Your task to perform on an android device: stop showing notifications on the lock screen Image 0: 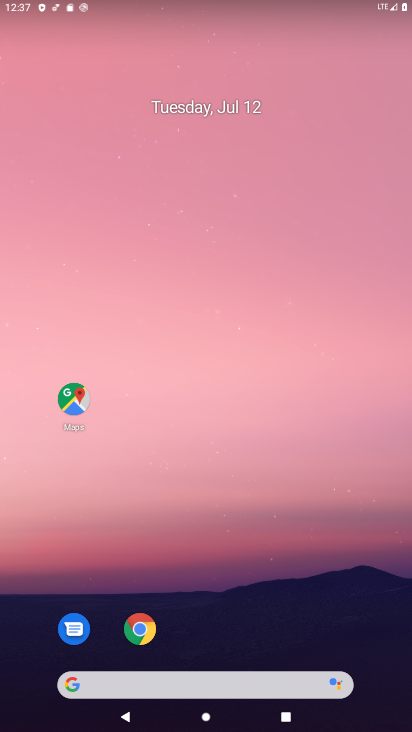
Step 0: drag from (324, 150) to (343, 113)
Your task to perform on an android device: stop showing notifications on the lock screen Image 1: 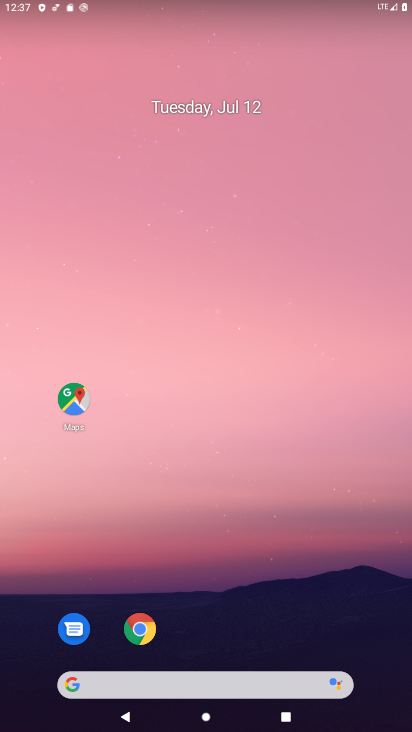
Step 1: drag from (53, 677) to (380, 15)
Your task to perform on an android device: stop showing notifications on the lock screen Image 2: 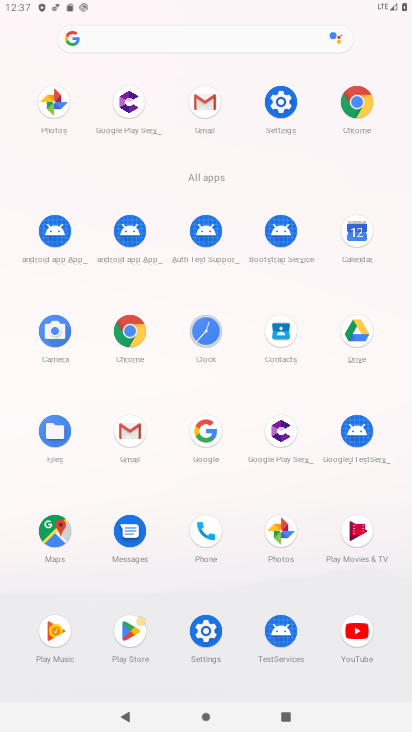
Step 2: click (220, 623)
Your task to perform on an android device: stop showing notifications on the lock screen Image 3: 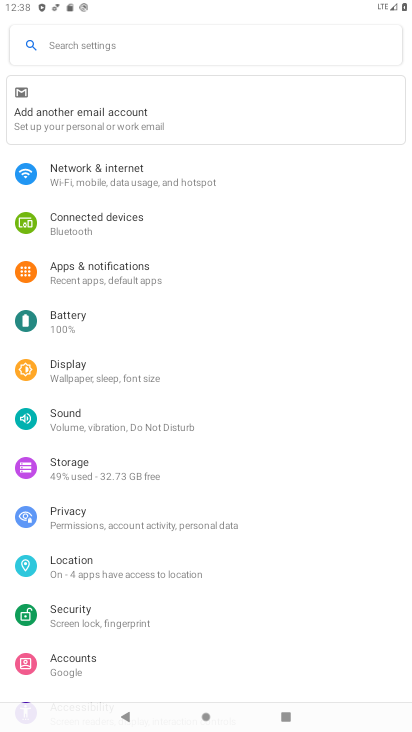
Step 3: click (77, 619)
Your task to perform on an android device: stop showing notifications on the lock screen Image 4: 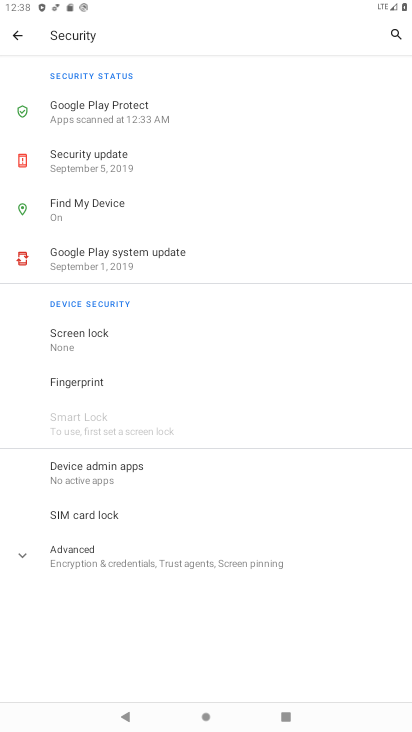
Step 4: click (89, 347)
Your task to perform on an android device: stop showing notifications on the lock screen Image 5: 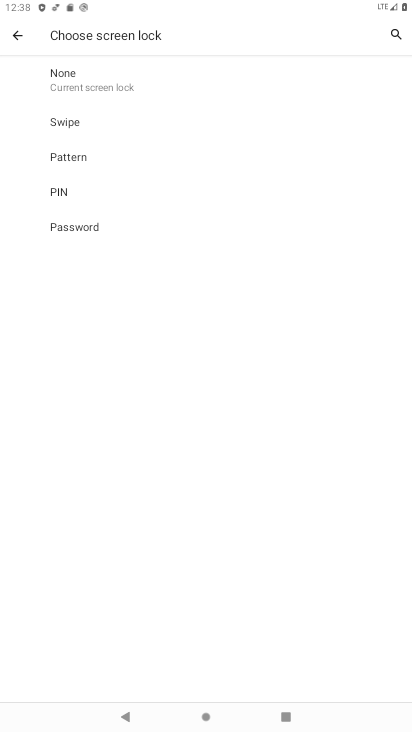
Step 5: click (70, 78)
Your task to perform on an android device: stop showing notifications on the lock screen Image 6: 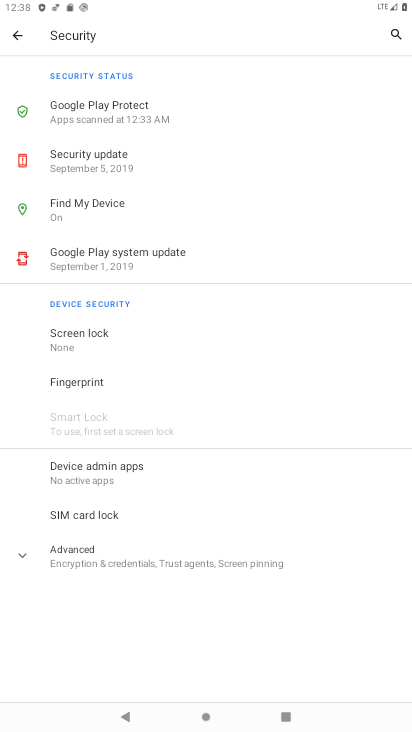
Step 6: click (62, 558)
Your task to perform on an android device: stop showing notifications on the lock screen Image 7: 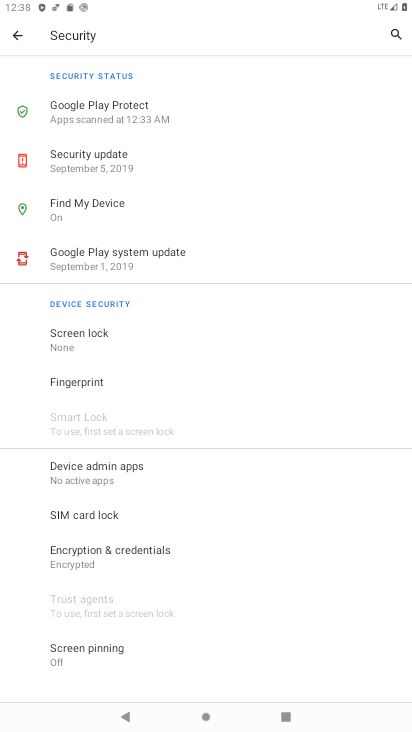
Step 7: click (96, 338)
Your task to perform on an android device: stop showing notifications on the lock screen Image 8: 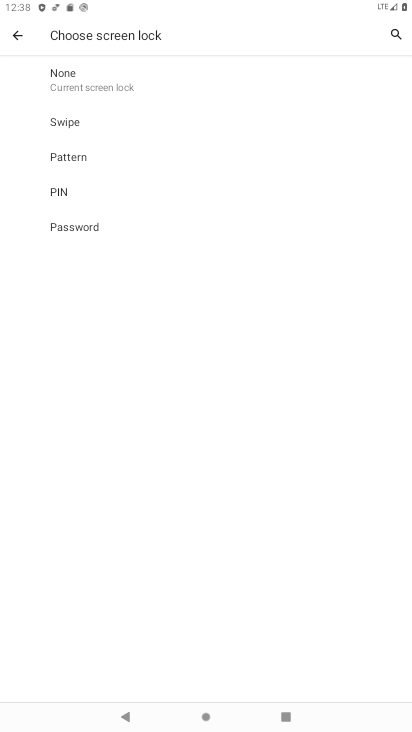
Step 8: task complete